Your task to perform on an android device: Open battery settings Image 0: 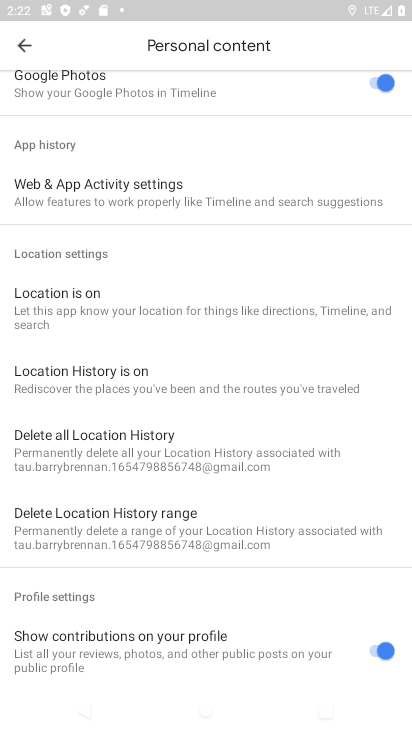
Step 0: press home button
Your task to perform on an android device: Open battery settings Image 1: 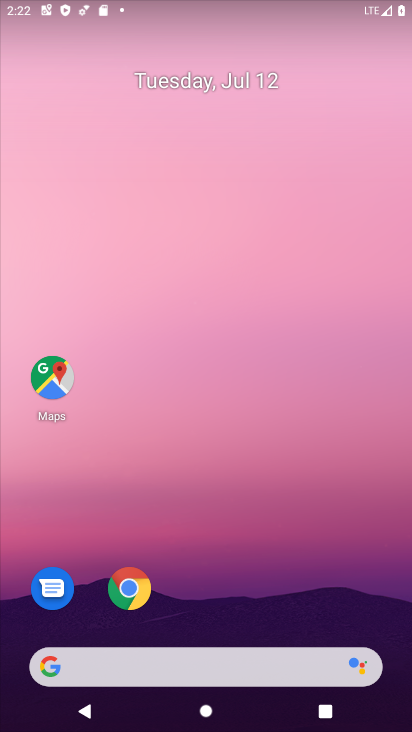
Step 1: drag from (172, 690) to (98, 182)
Your task to perform on an android device: Open battery settings Image 2: 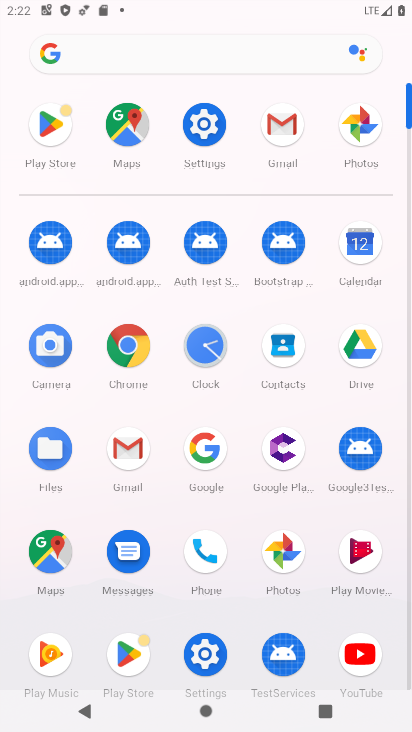
Step 2: click (213, 133)
Your task to perform on an android device: Open battery settings Image 3: 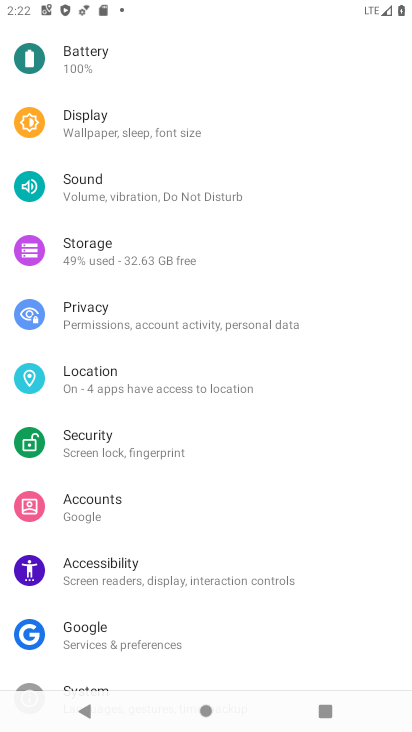
Step 3: click (92, 60)
Your task to perform on an android device: Open battery settings Image 4: 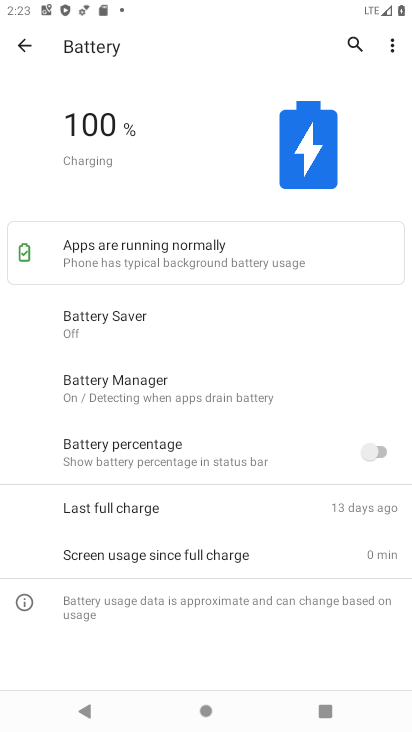
Step 4: task complete